Your task to perform on an android device: set the timer Image 0: 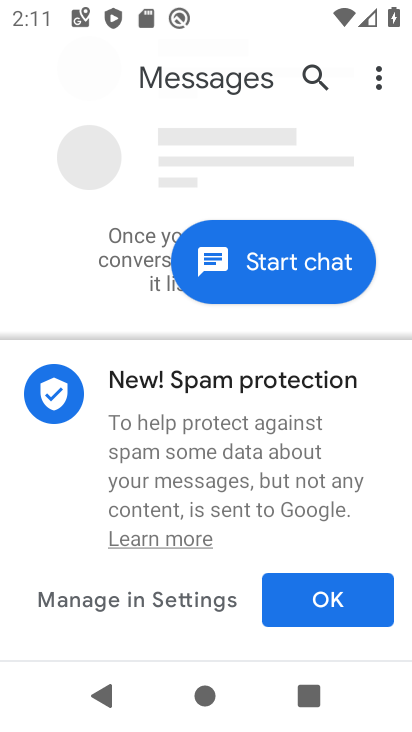
Step 0: press home button
Your task to perform on an android device: set the timer Image 1: 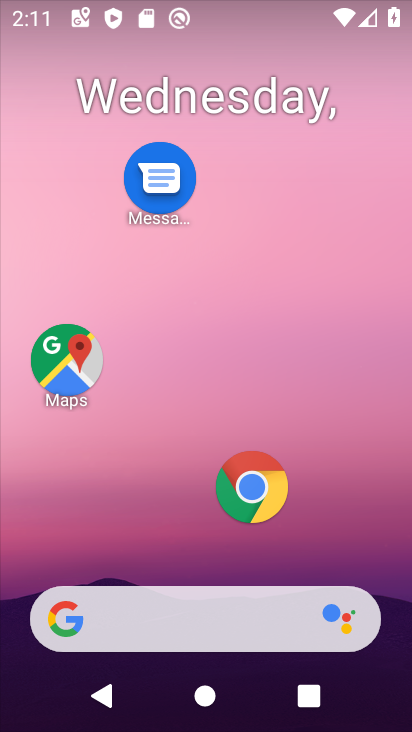
Step 1: drag from (197, 559) to (216, 156)
Your task to perform on an android device: set the timer Image 2: 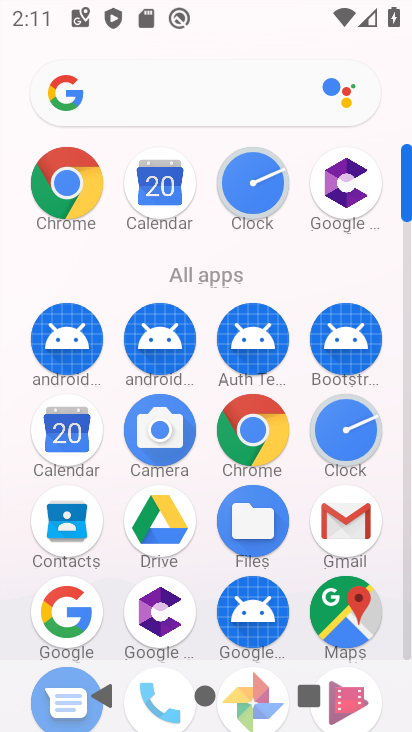
Step 2: click (248, 196)
Your task to perform on an android device: set the timer Image 3: 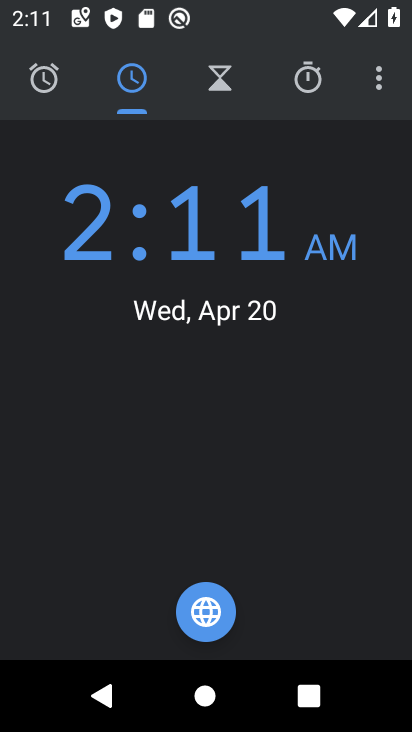
Step 3: click (224, 89)
Your task to perform on an android device: set the timer Image 4: 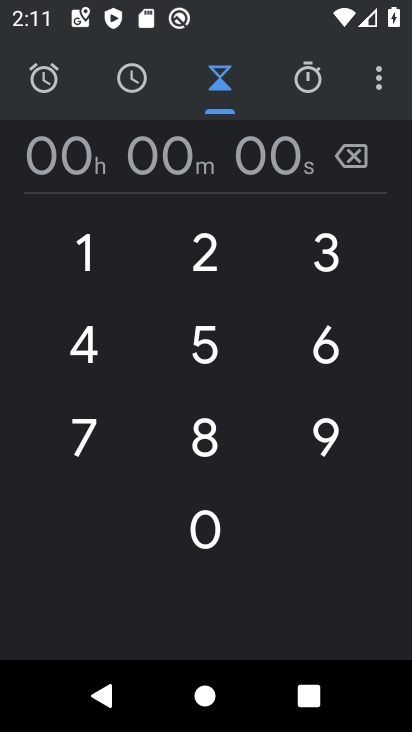
Step 4: click (269, 136)
Your task to perform on an android device: set the timer Image 5: 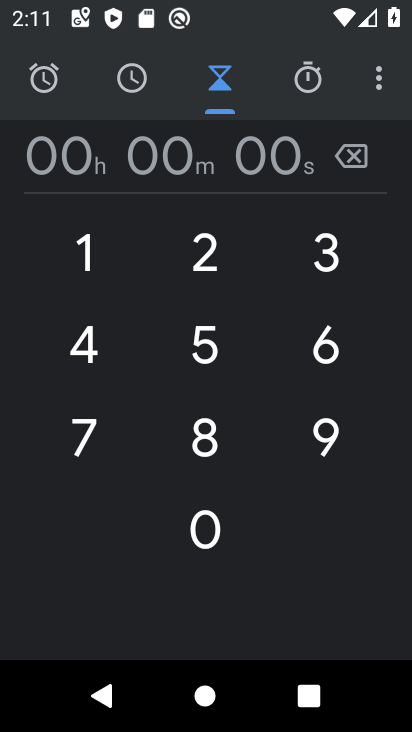
Step 5: type "55"
Your task to perform on an android device: set the timer Image 6: 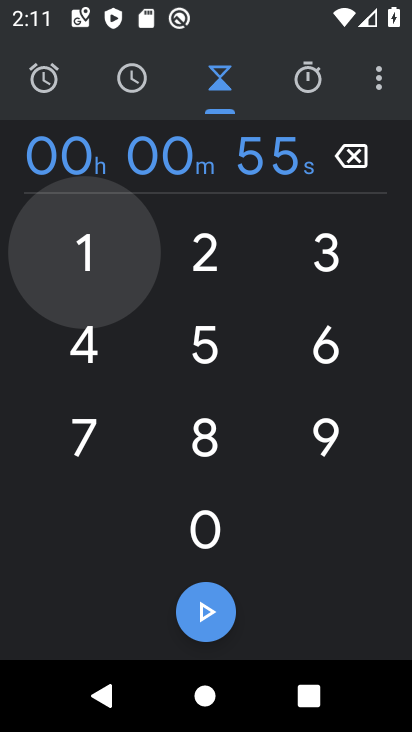
Step 6: click (228, 602)
Your task to perform on an android device: set the timer Image 7: 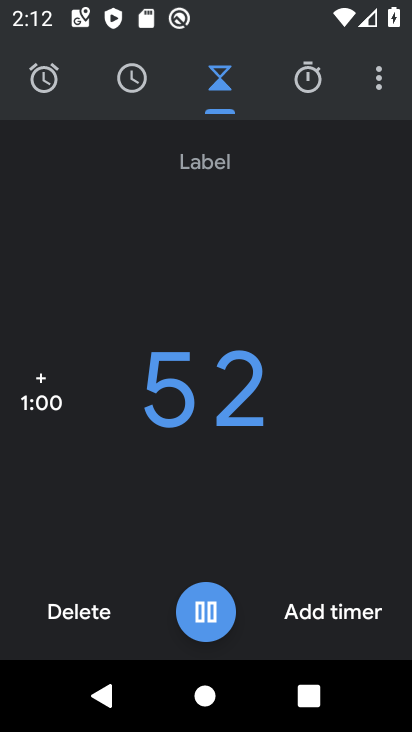
Step 7: task complete